Your task to perform on an android device: change notifications settings Image 0: 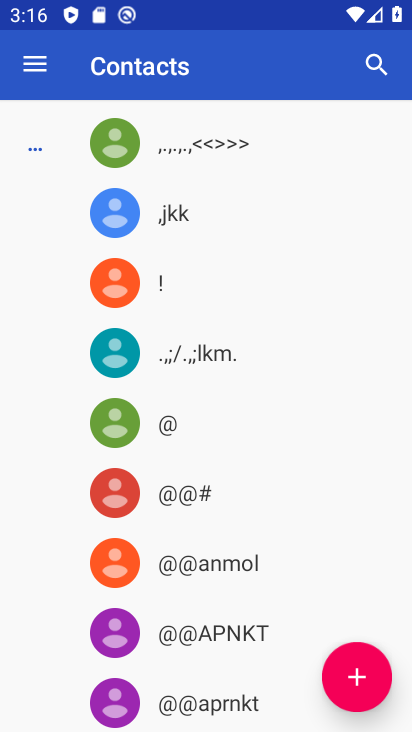
Step 0: press home button
Your task to perform on an android device: change notifications settings Image 1: 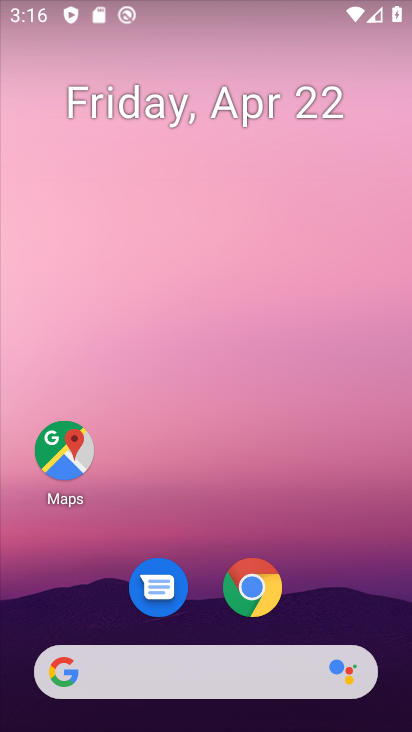
Step 1: drag from (329, 569) to (276, 31)
Your task to perform on an android device: change notifications settings Image 2: 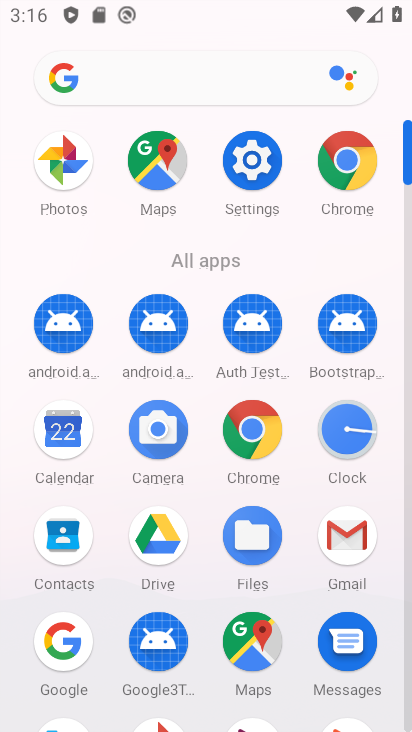
Step 2: click (263, 155)
Your task to perform on an android device: change notifications settings Image 3: 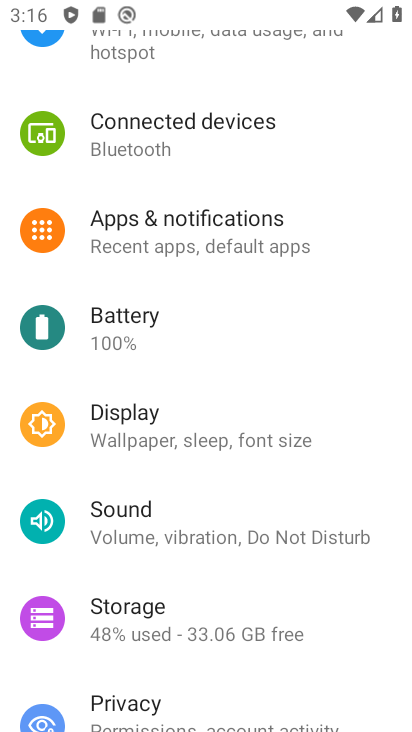
Step 3: click (205, 232)
Your task to perform on an android device: change notifications settings Image 4: 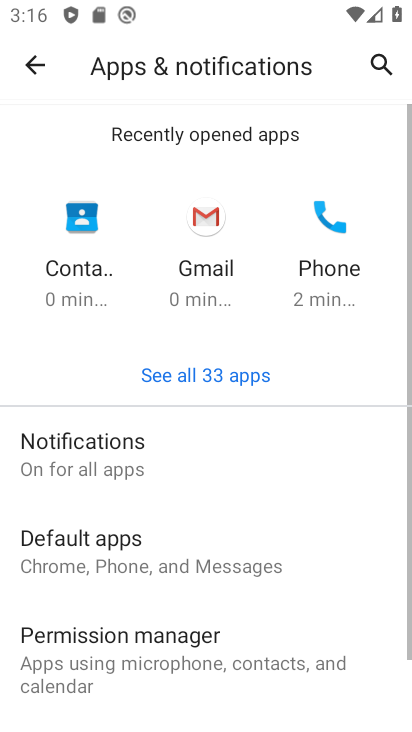
Step 4: click (104, 446)
Your task to perform on an android device: change notifications settings Image 5: 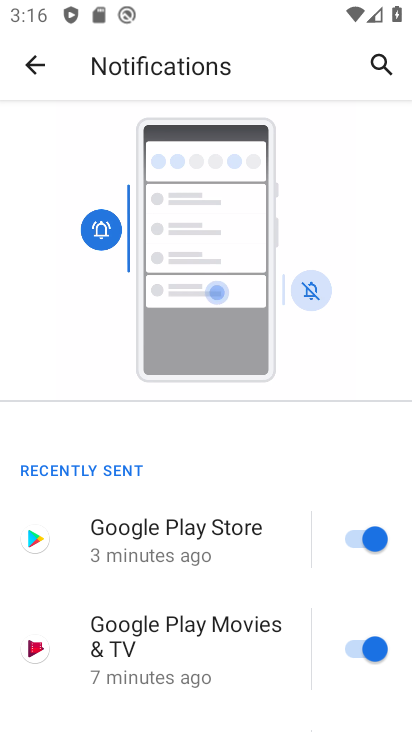
Step 5: drag from (189, 584) to (167, 113)
Your task to perform on an android device: change notifications settings Image 6: 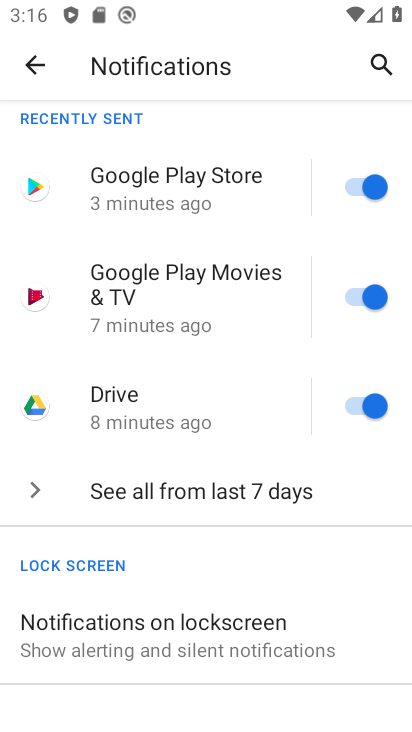
Step 6: click (380, 278)
Your task to perform on an android device: change notifications settings Image 7: 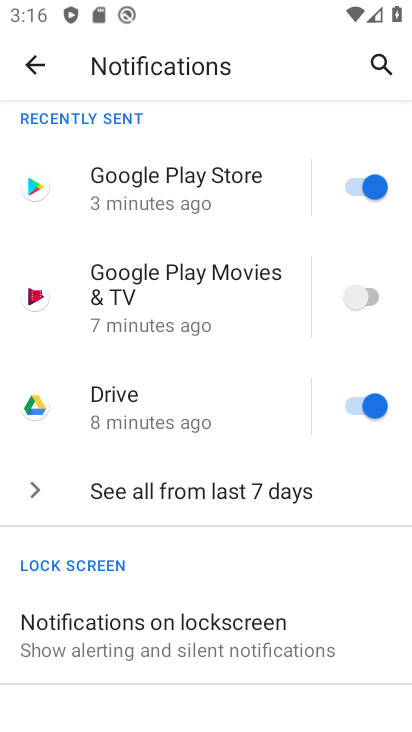
Step 7: drag from (198, 571) to (185, 91)
Your task to perform on an android device: change notifications settings Image 8: 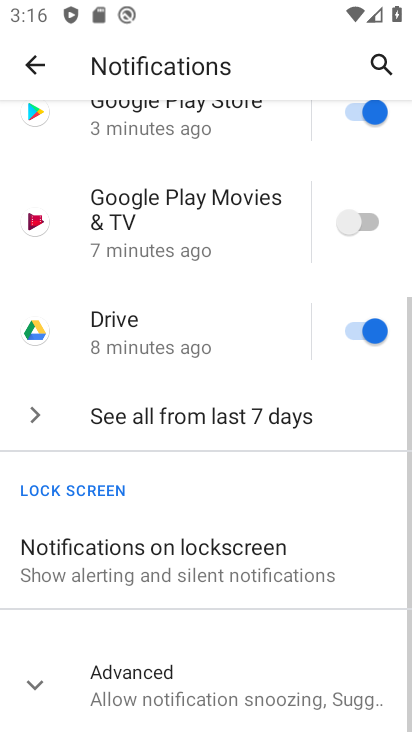
Step 8: click (132, 672)
Your task to perform on an android device: change notifications settings Image 9: 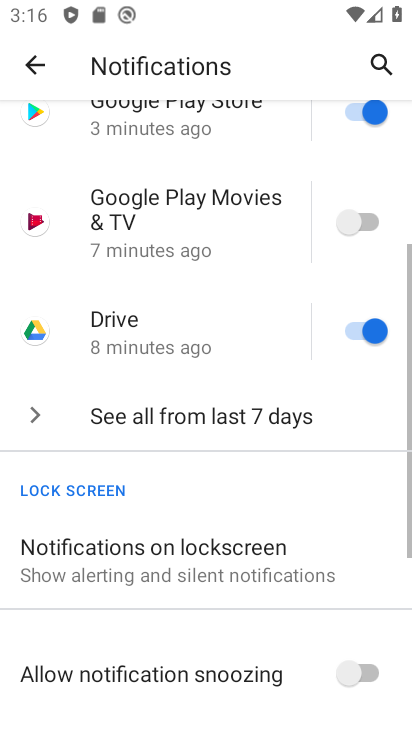
Step 9: drag from (146, 645) to (124, 285)
Your task to perform on an android device: change notifications settings Image 10: 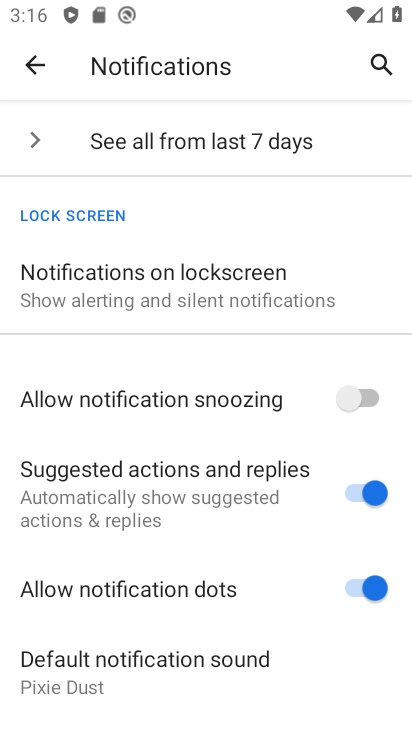
Step 10: click (355, 481)
Your task to perform on an android device: change notifications settings Image 11: 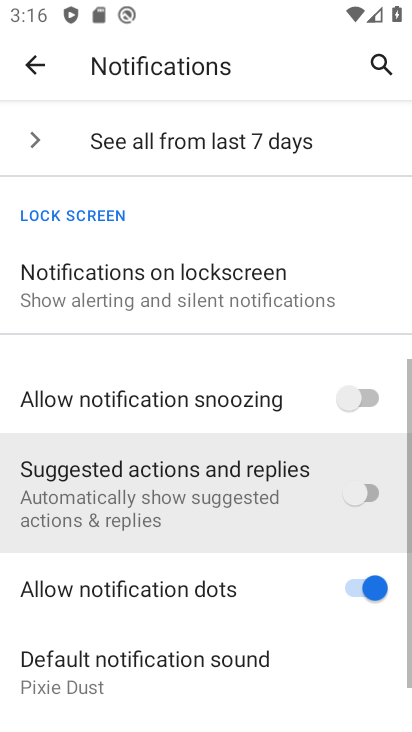
Step 11: click (353, 587)
Your task to perform on an android device: change notifications settings Image 12: 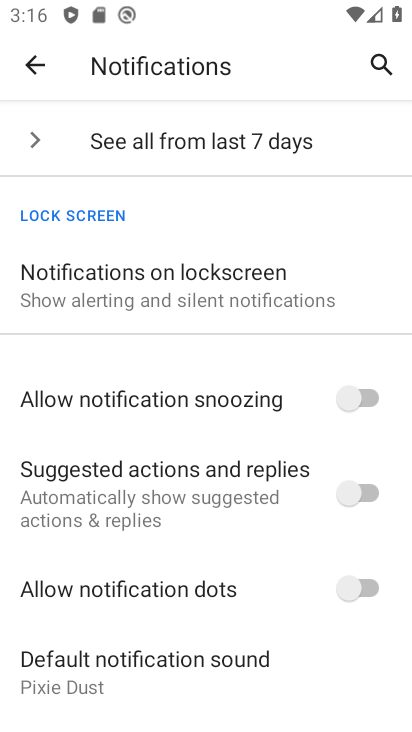
Step 12: task complete